Your task to perform on an android device: turn on improve location accuracy Image 0: 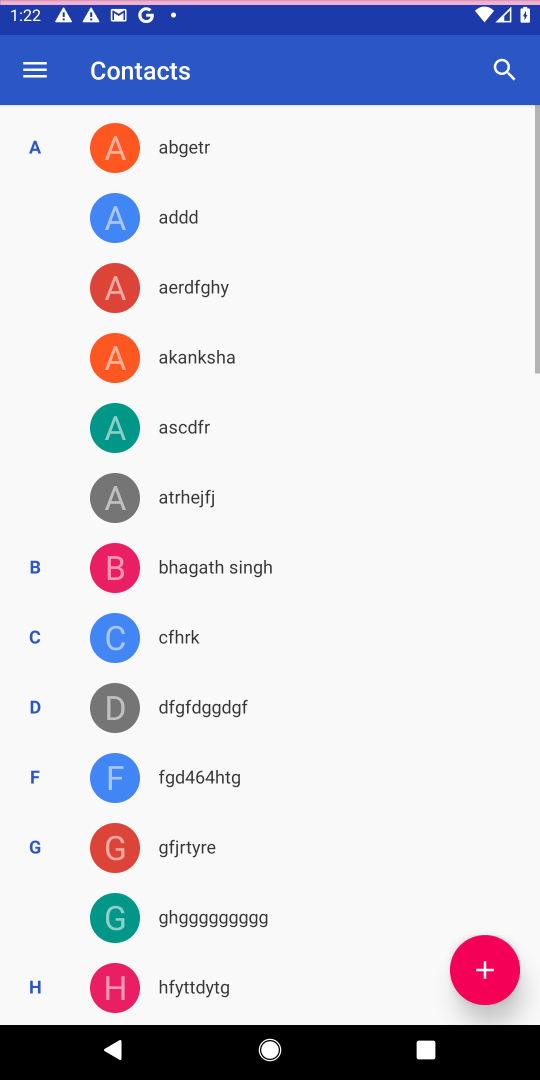
Step 0: press home button
Your task to perform on an android device: turn on improve location accuracy Image 1: 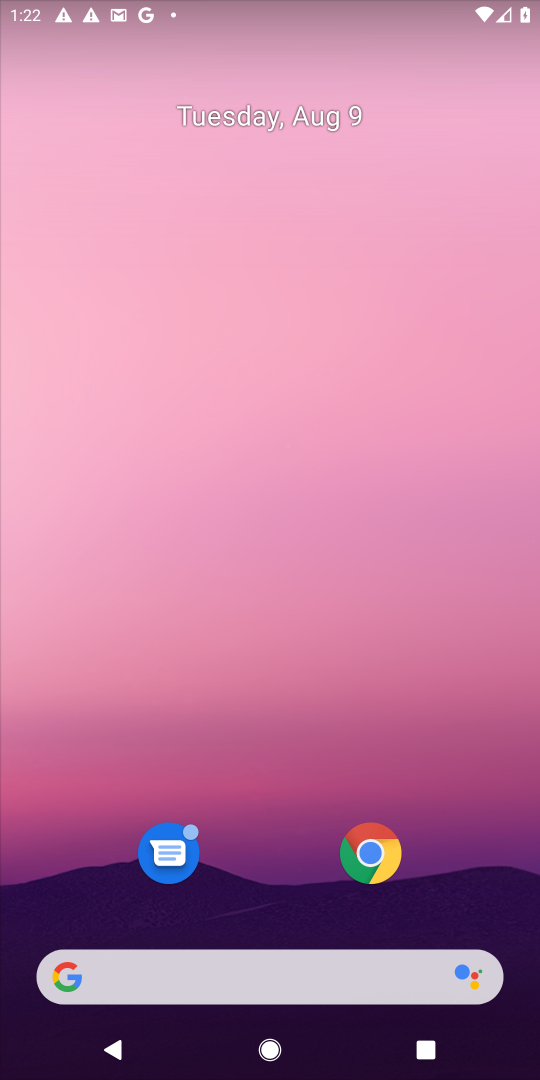
Step 1: drag from (281, 901) to (378, 10)
Your task to perform on an android device: turn on improve location accuracy Image 2: 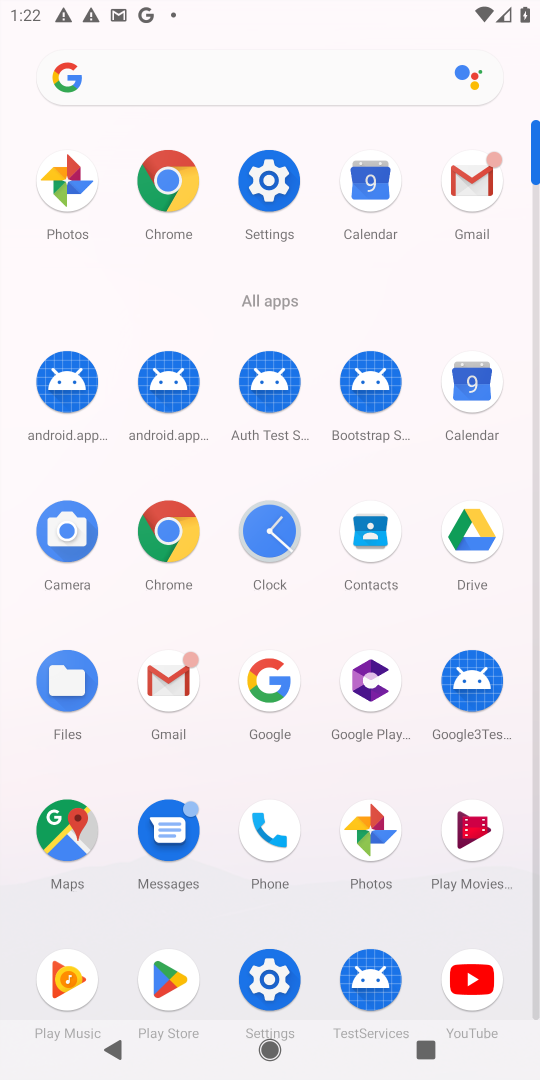
Step 2: click (272, 164)
Your task to perform on an android device: turn on improve location accuracy Image 3: 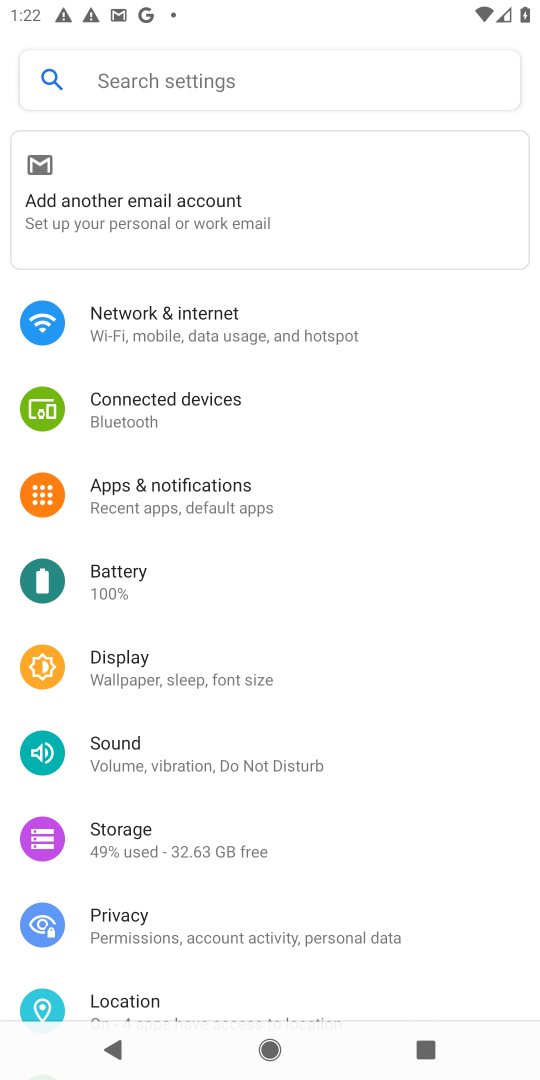
Step 3: click (162, 989)
Your task to perform on an android device: turn on improve location accuracy Image 4: 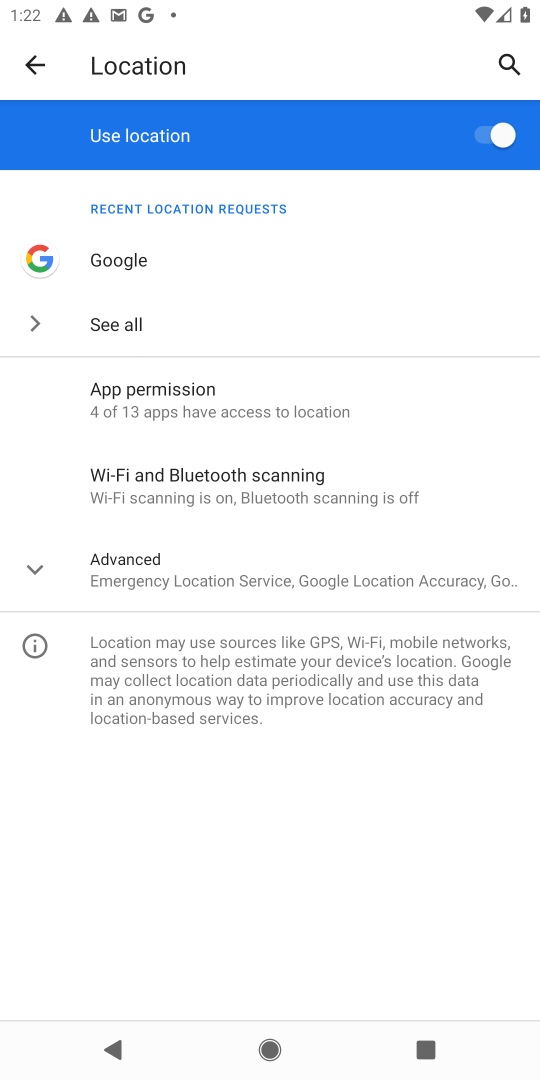
Step 4: click (113, 568)
Your task to perform on an android device: turn on improve location accuracy Image 5: 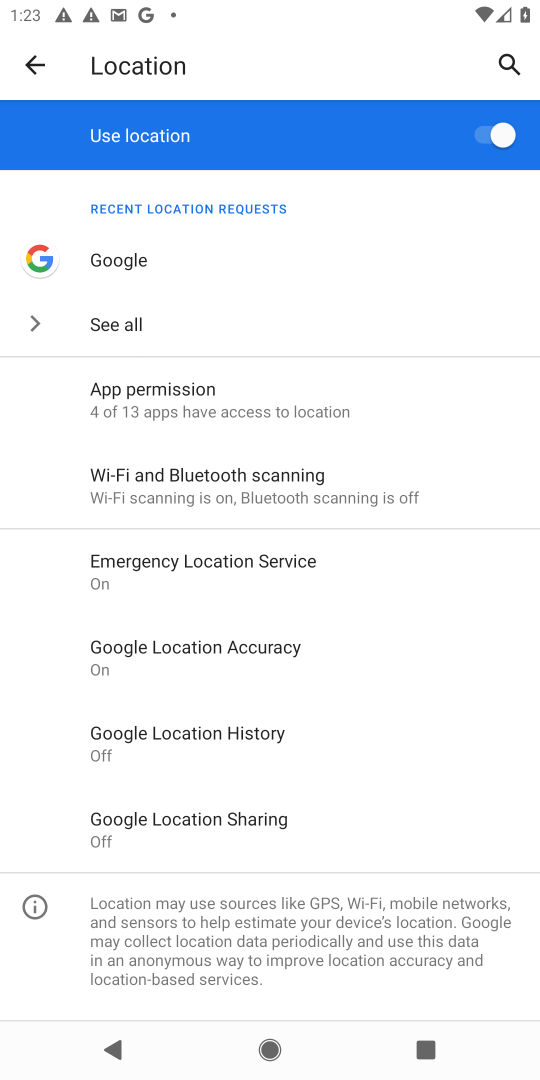
Step 5: click (235, 663)
Your task to perform on an android device: turn on improve location accuracy Image 6: 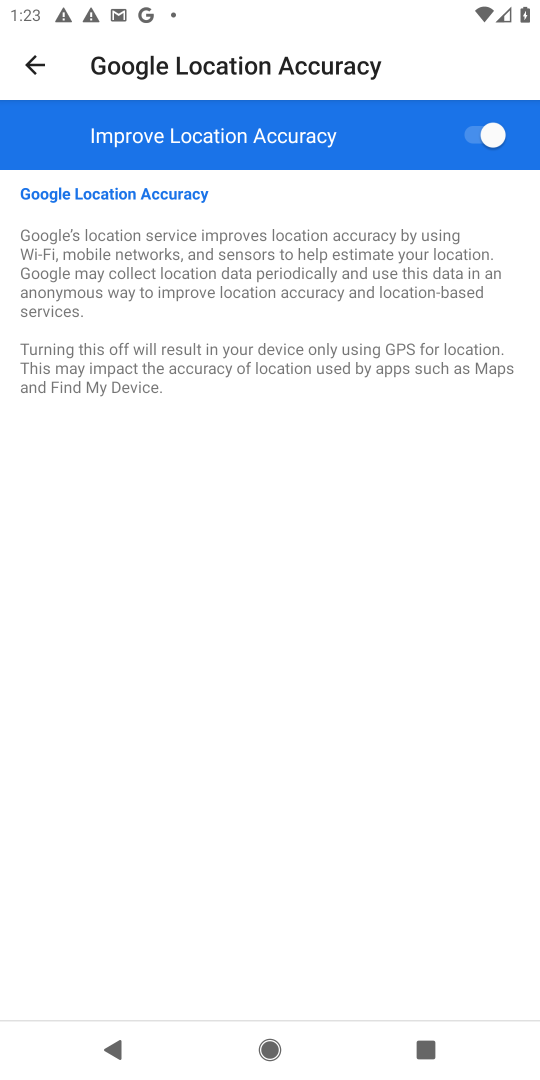
Step 6: task complete